Your task to perform on an android device: Go to Yahoo.com Image 0: 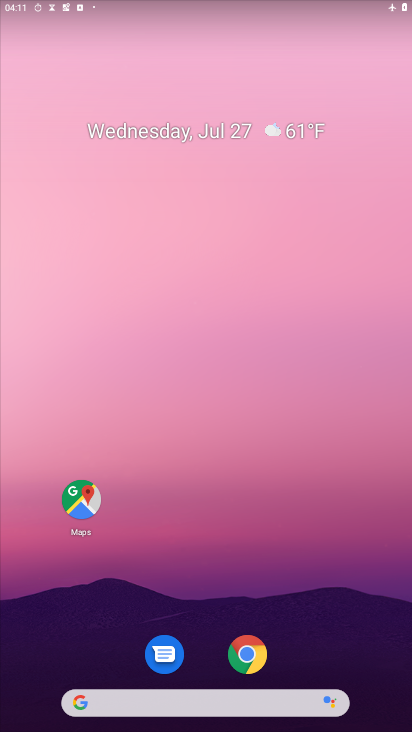
Step 0: drag from (248, 703) to (387, 4)
Your task to perform on an android device: Go to Yahoo.com Image 1: 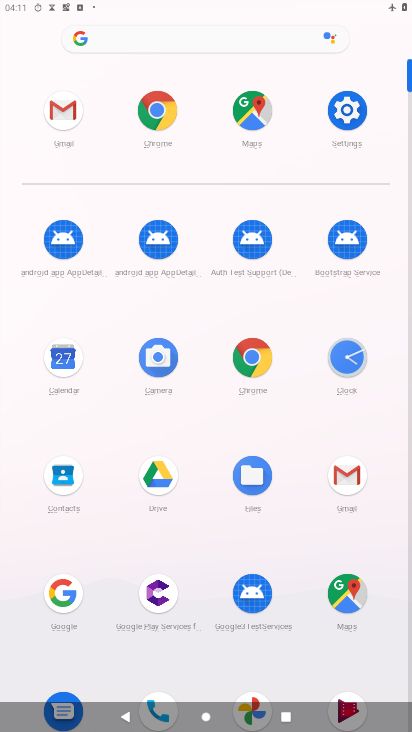
Step 1: click (245, 350)
Your task to perform on an android device: Go to Yahoo.com Image 2: 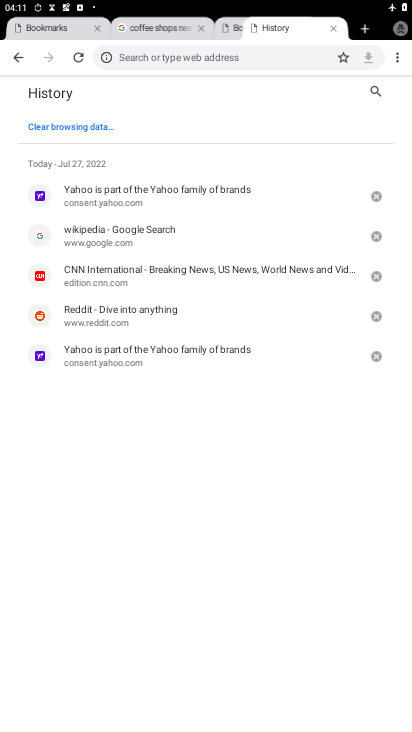
Step 2: click (151, 44)
Your task to perform on an android device: Go to Yahoo.com Image 3: 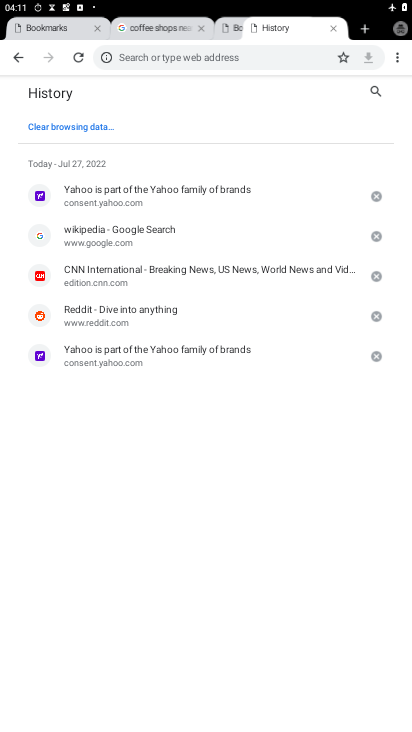
Step 3: click (125, 59)
Your task to perform on an android device: Go to Yahoo.com Image 4: 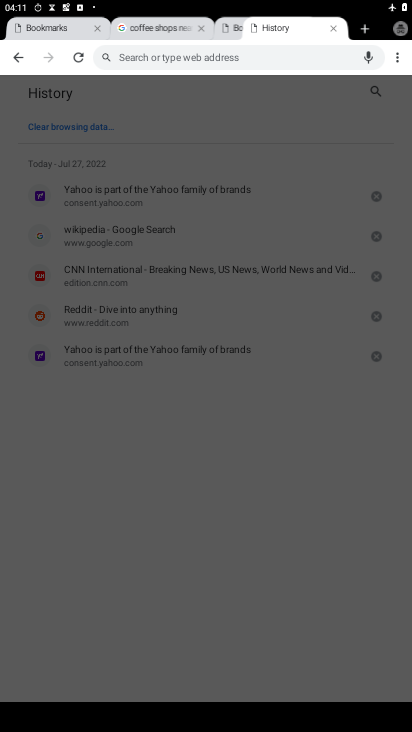
Step 4: type "yahoo.com"
Your task to perform on an android device: Go to Yahoo.com Image 5: 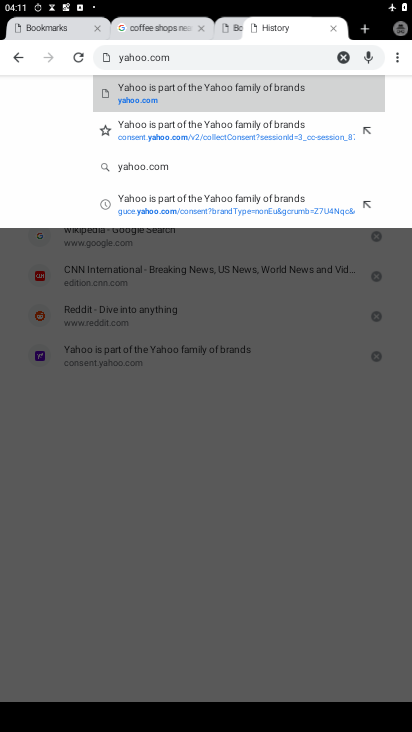
Step 5: click (146, 97)
Your task to perform on an android device: Go to Yahoo.com Image 6: 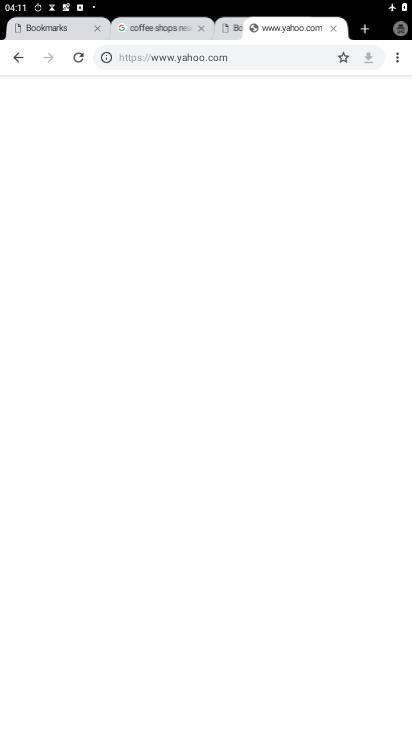
Step 6: task complete